Your task to perform on an android device: toggle wifi Image 0: 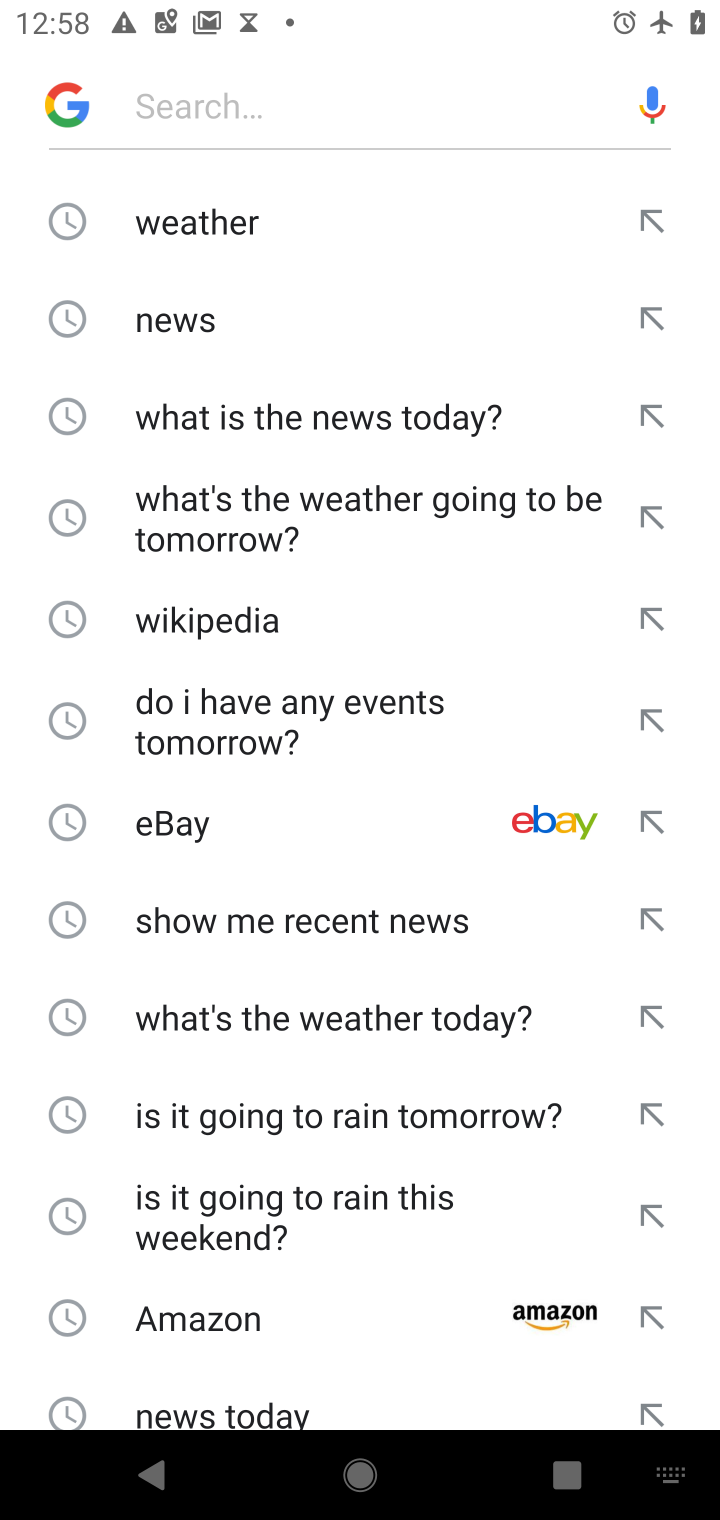
Step 0: press home button
Your task to perform on an android device: toggle wifi Image 1: 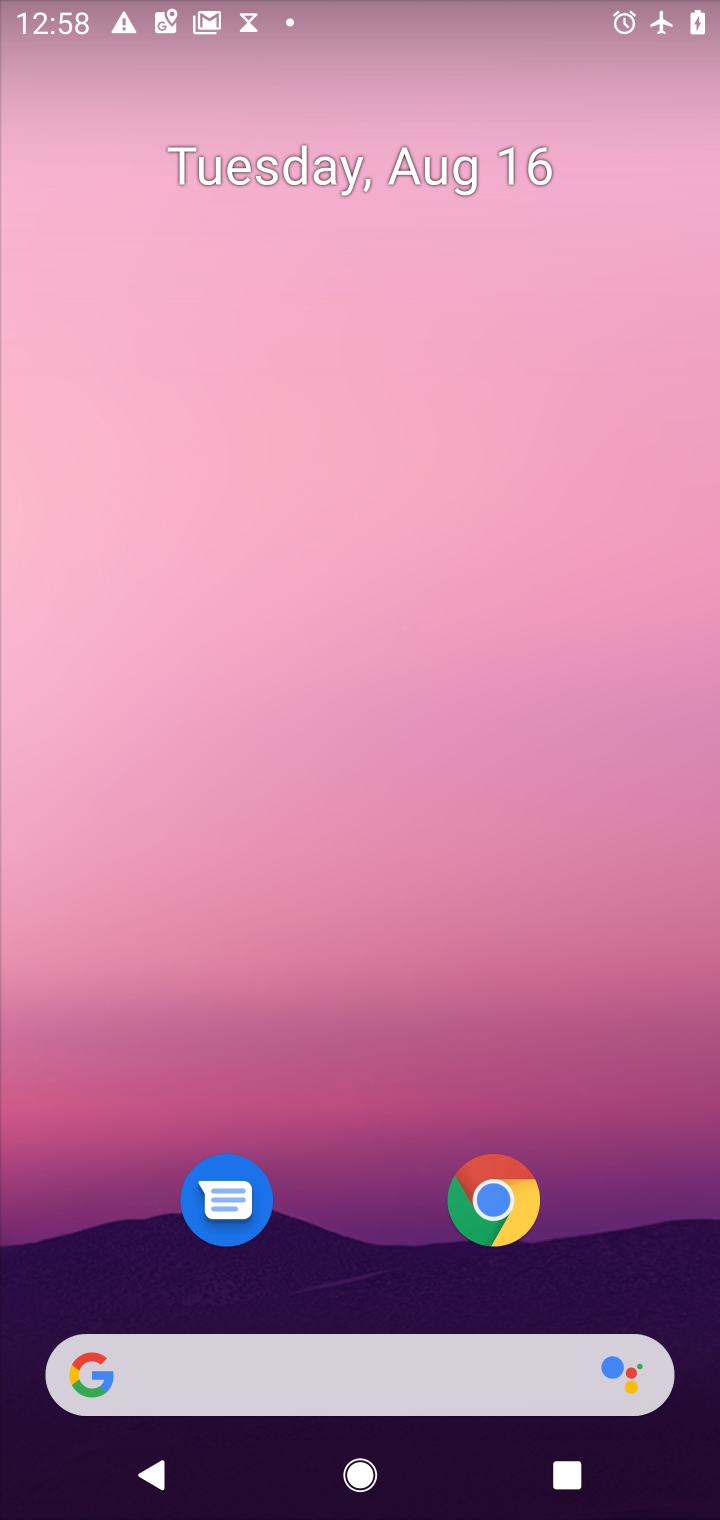
Step 1: drag from (342, 1176) to (300, 319)
Your task to perform on an android device: toggle wifi Image 2: 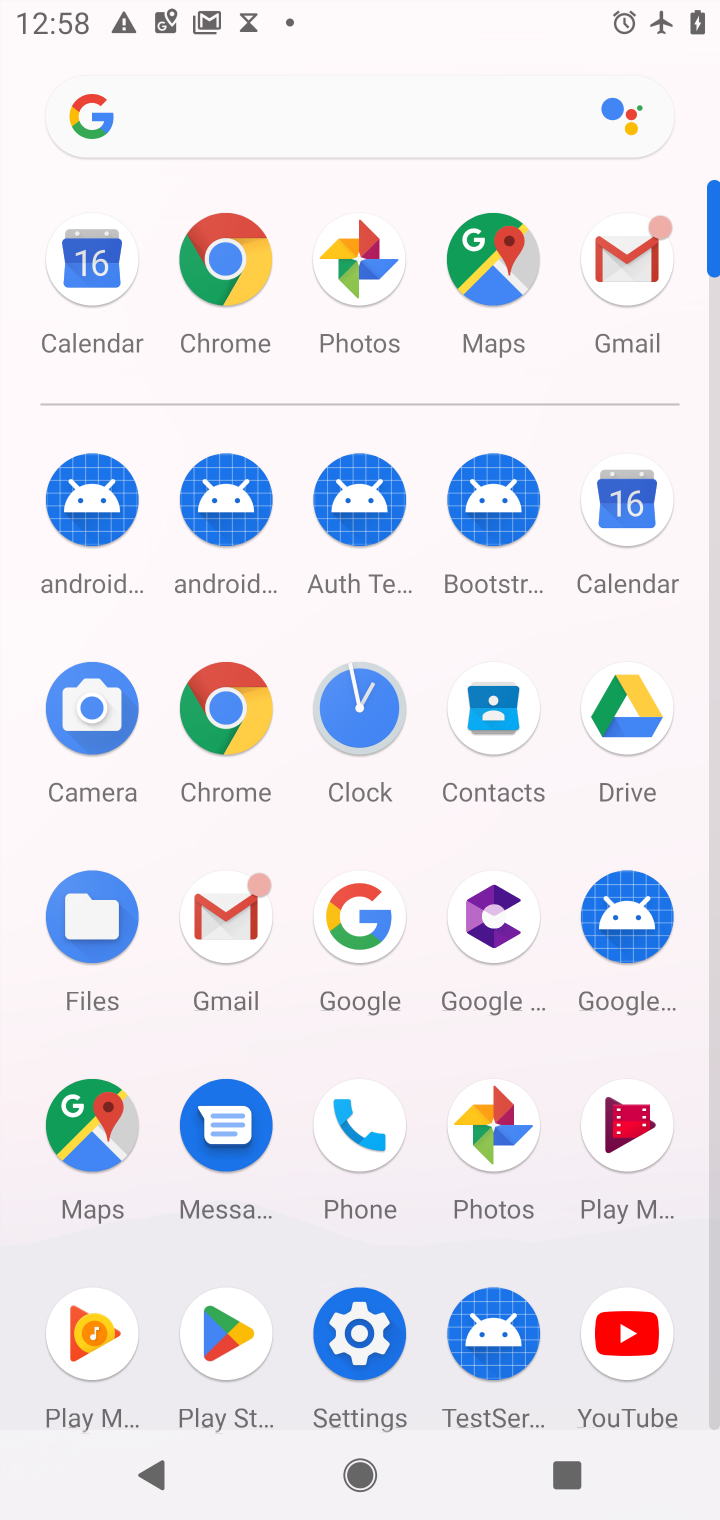
Step 2: click (365, 1351)
Your task to perform on an android device: toggle wifi Image 3: 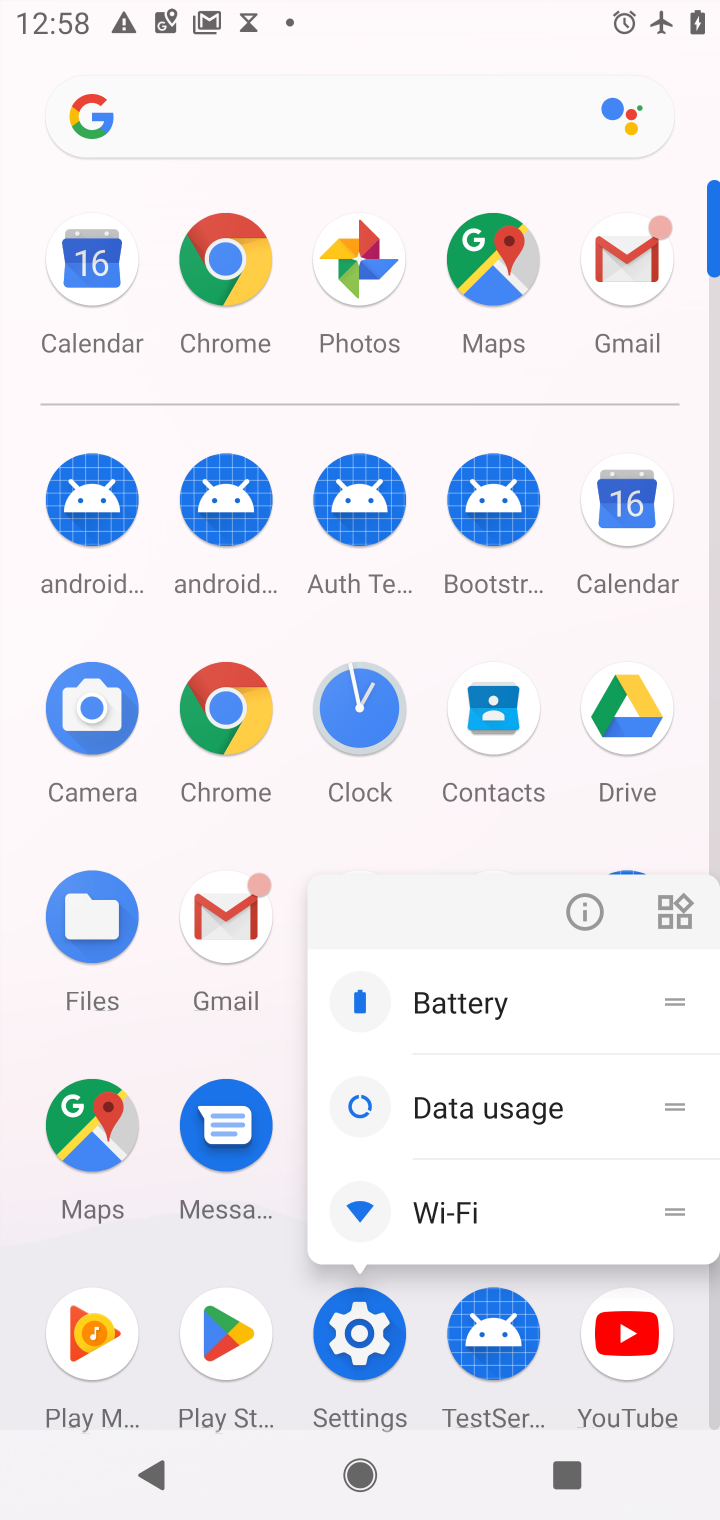
Step 3: click (343, 1319)
Your task to perform on an android device: toggle wifi Image 4: 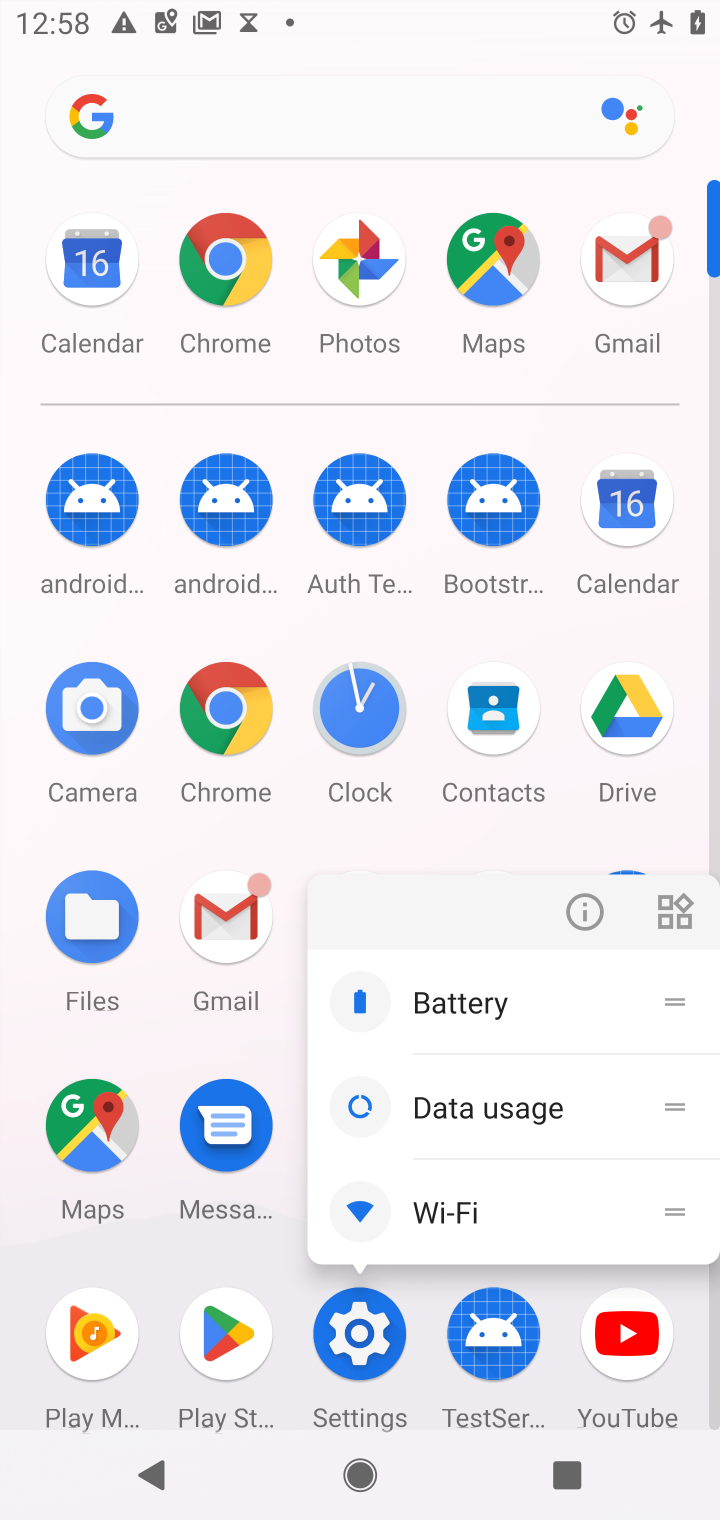
Step 4: click (343, 1319)
Your task to perform on an android device: toggle wifi Image 5: 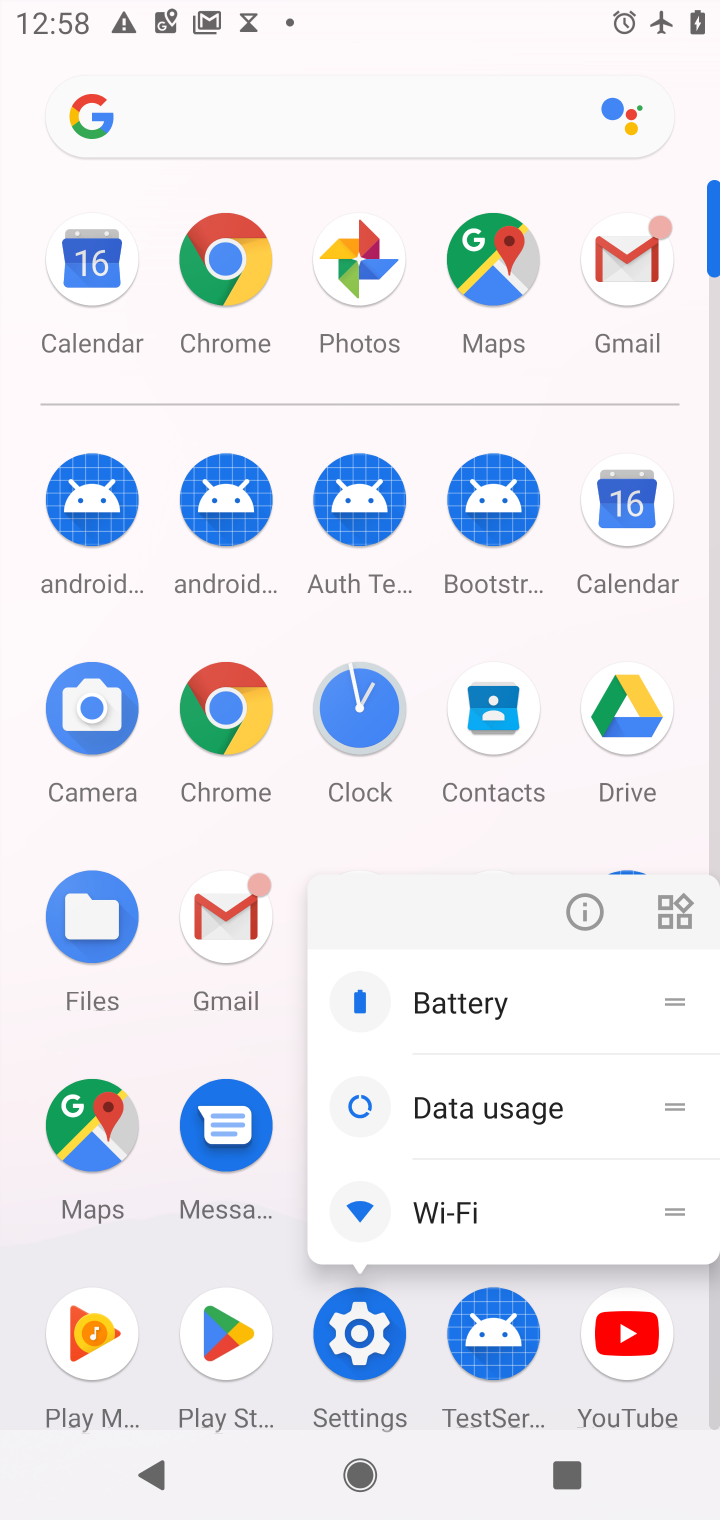
Step 5: click (343, 1319)
Your task to perform on an android device: toggle wifi Image 6: 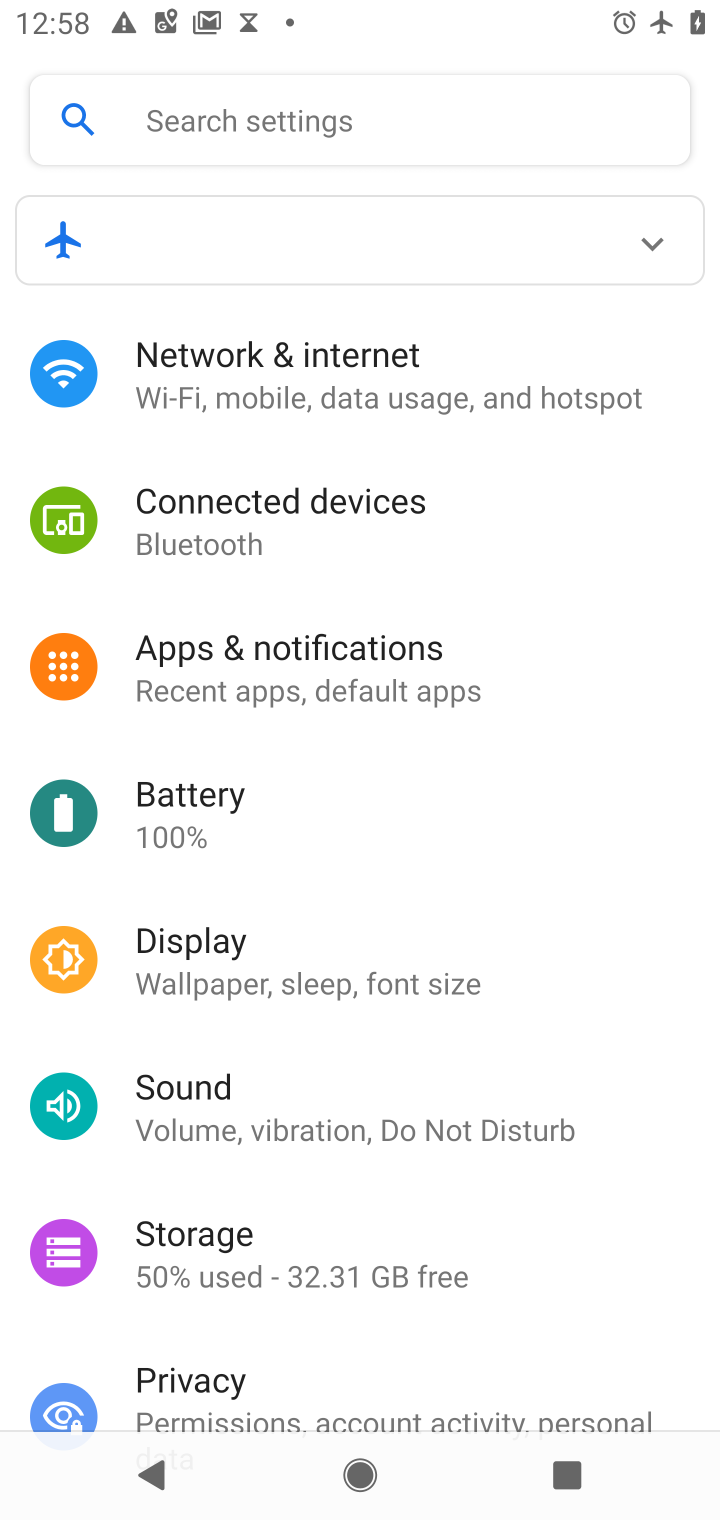
Step 6: click (408, 364)
Your task to perform on an android device: toggle wifi Image 7: 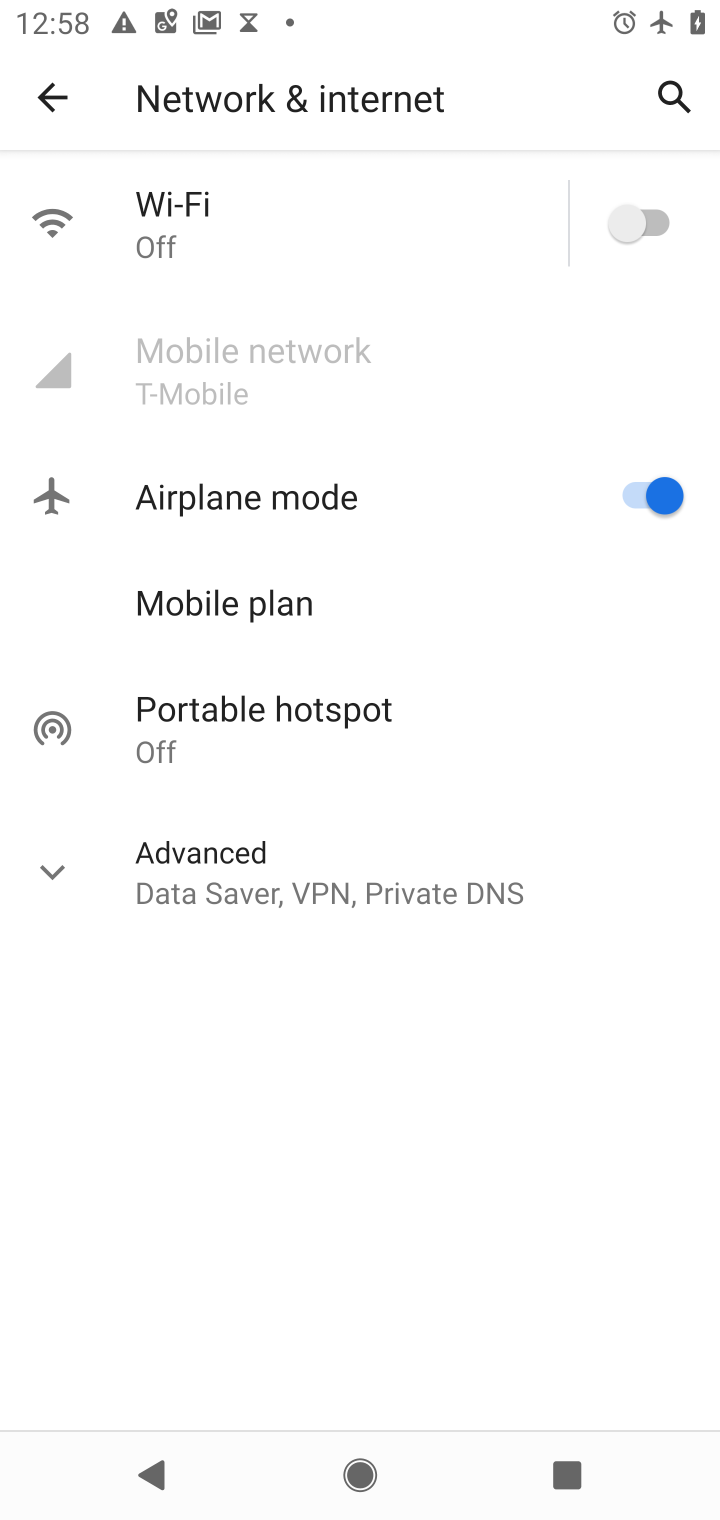
Step 7: click (197, 229)
Your task to perform on an android device: toggle wifi Image 8: 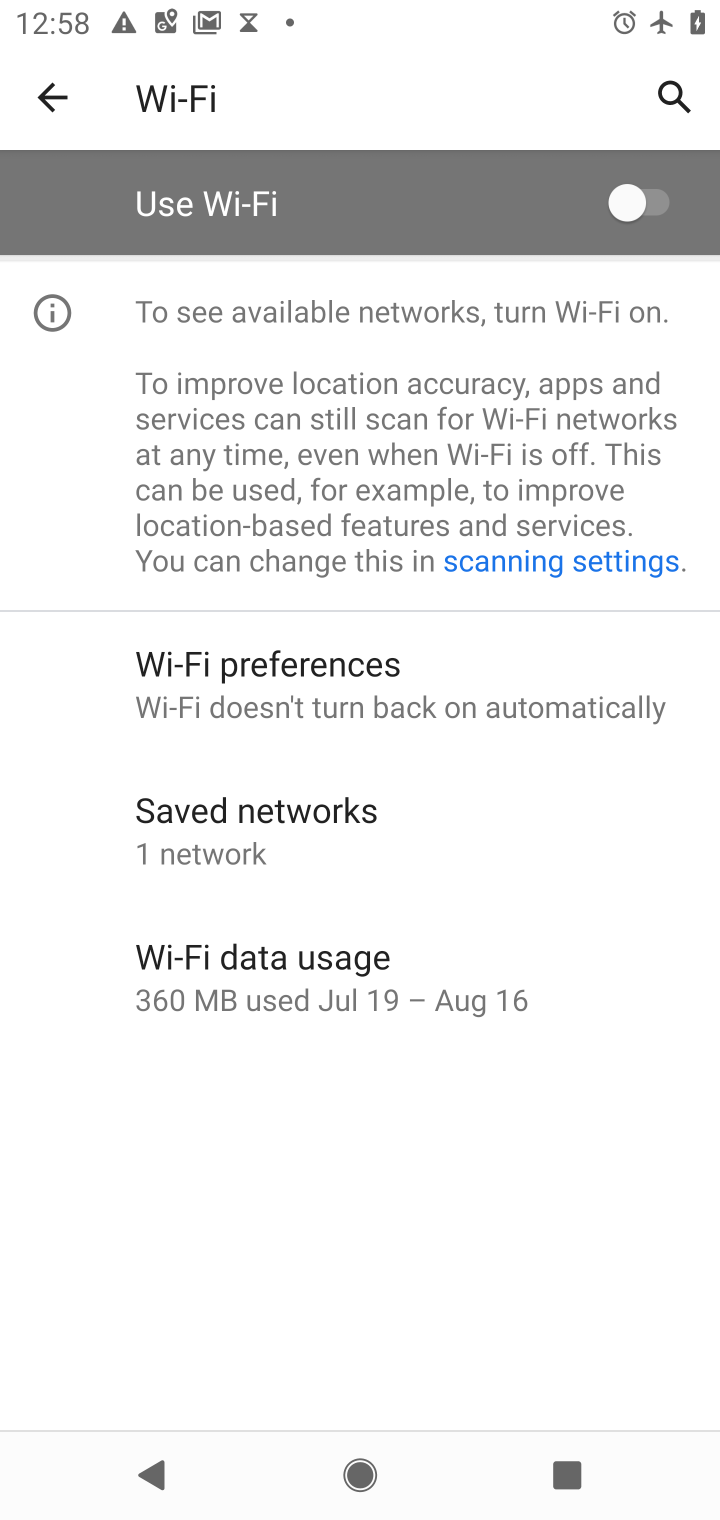
Step 8: click (649, 211)
Your task to perform on an android device: toggle wifi Image 9: 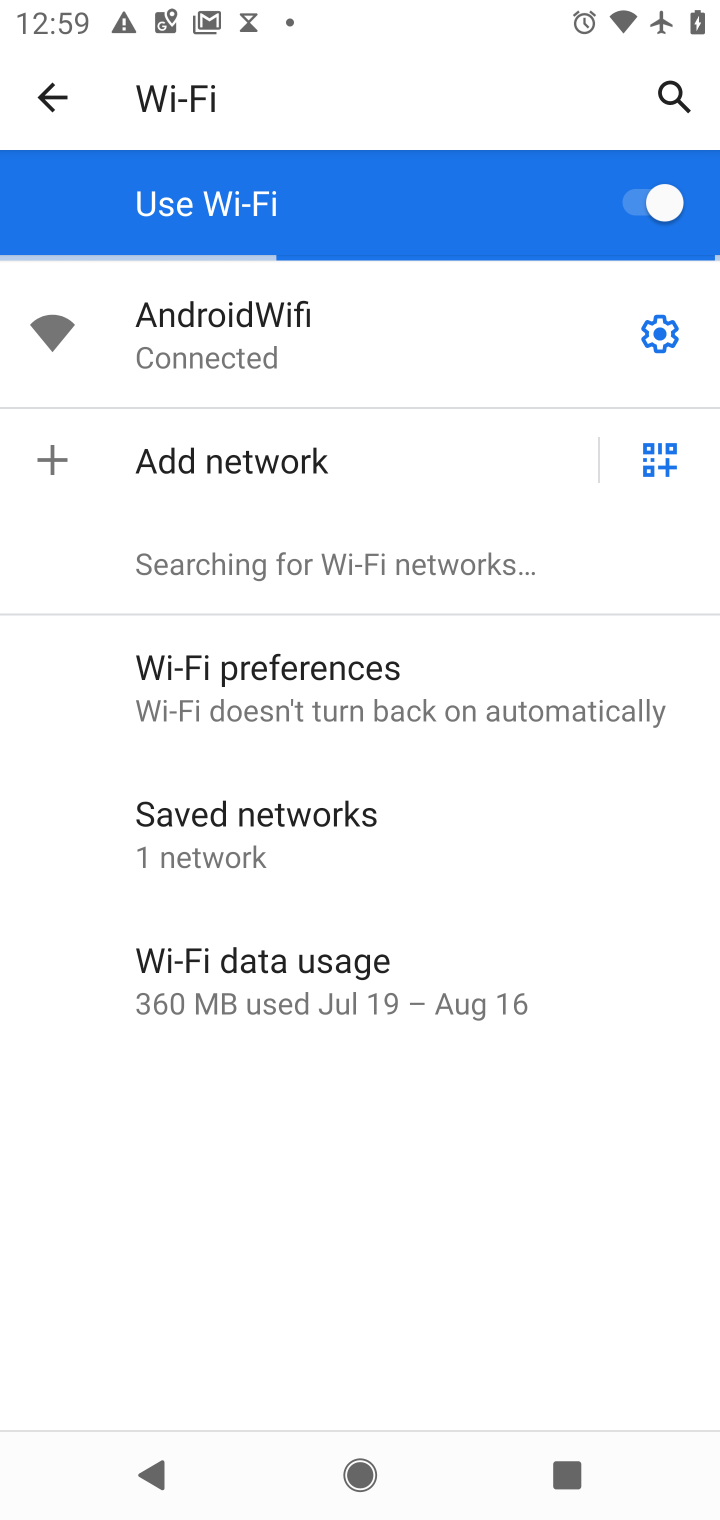
Step 9: task complete